Your task to perform on an android device: change text size in settings app Image 0: 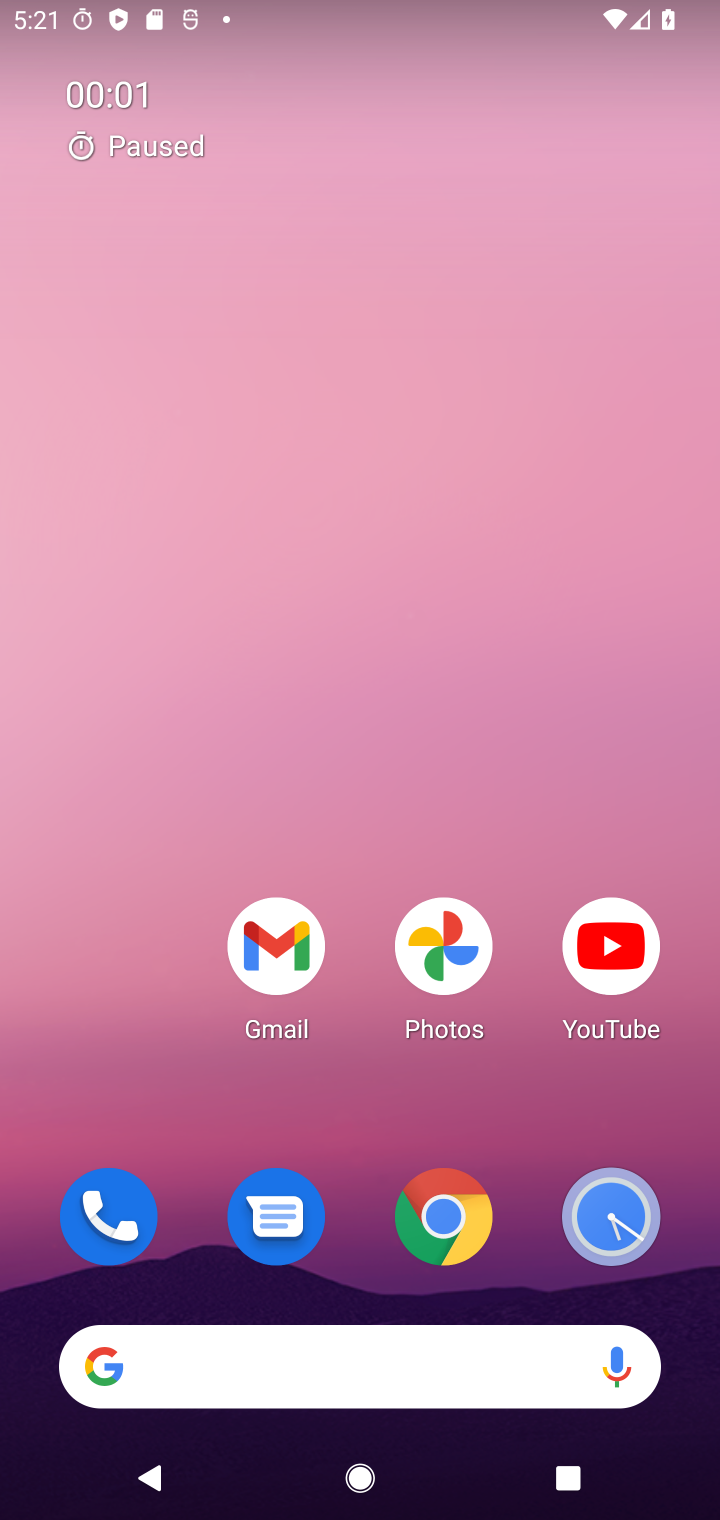
Step 0: drag from (546, 1102) to (589, 36)
Your task to perform on an android device: change text size in settings app Image 1: 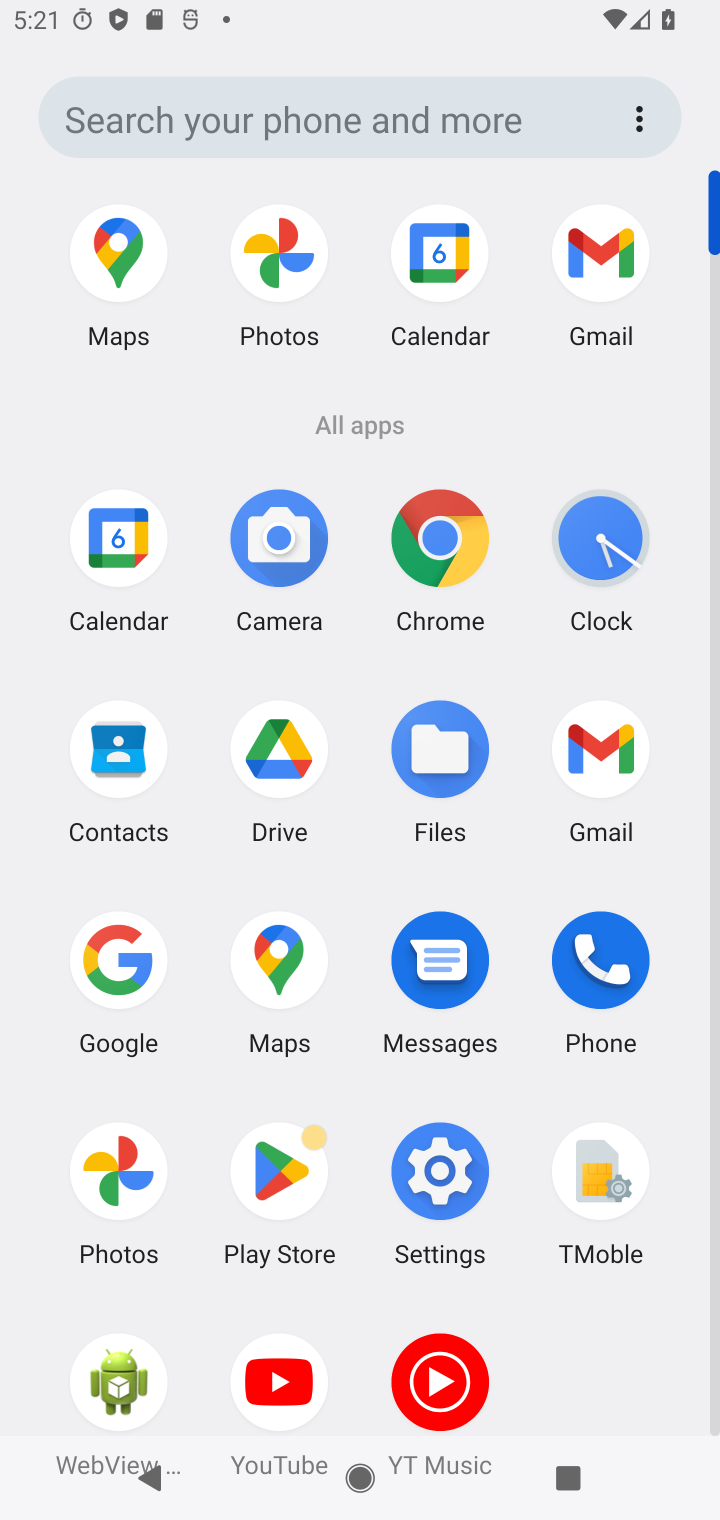
Step 1: click (419, 1171)
Your task to perform on an android device: change text size in settings app Image 2: 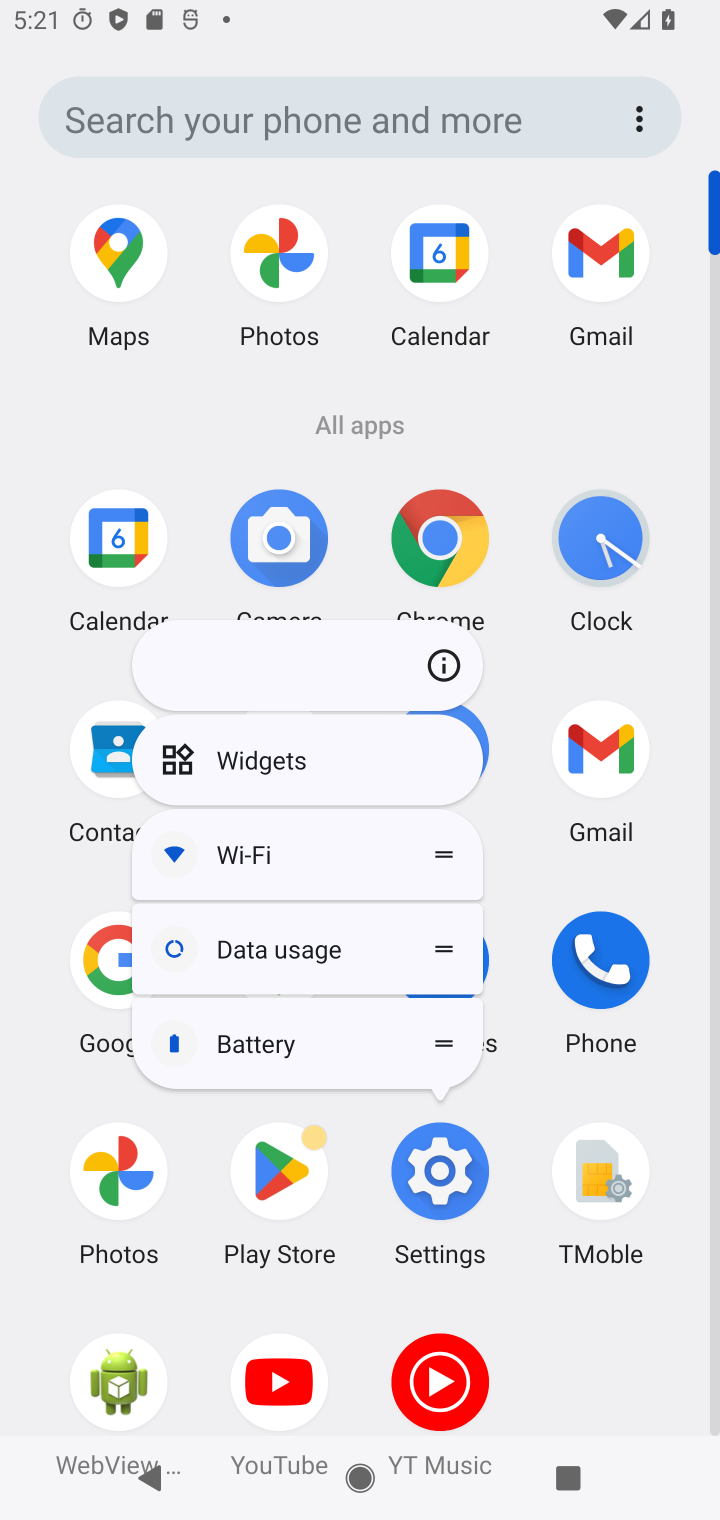
Step 2: click (435, 1167)
Your task to perform on an android device: change text size in settings app Image 3: 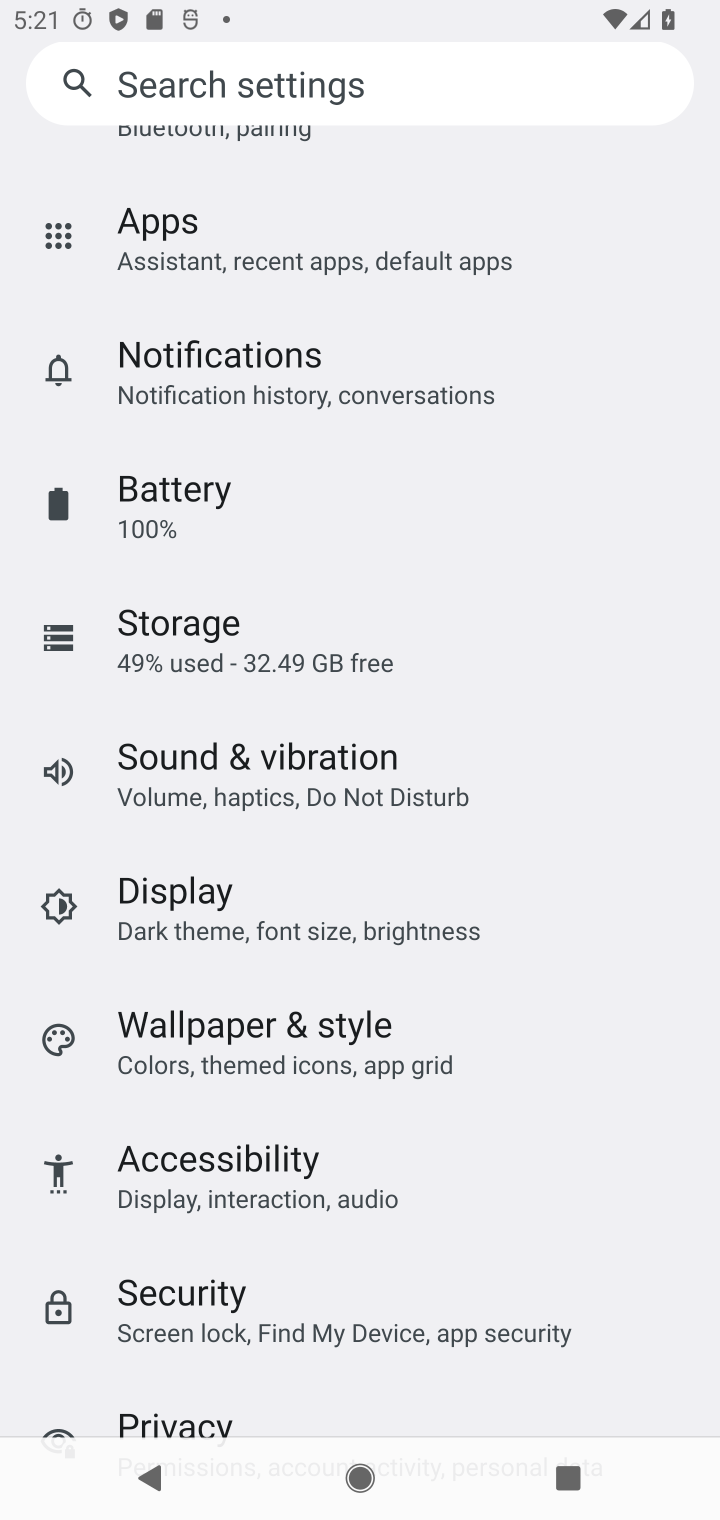
Step 3: drag from (323, 1377) to (334, 314)
Your task to perform on an android device: change text size in settings app Image 4: 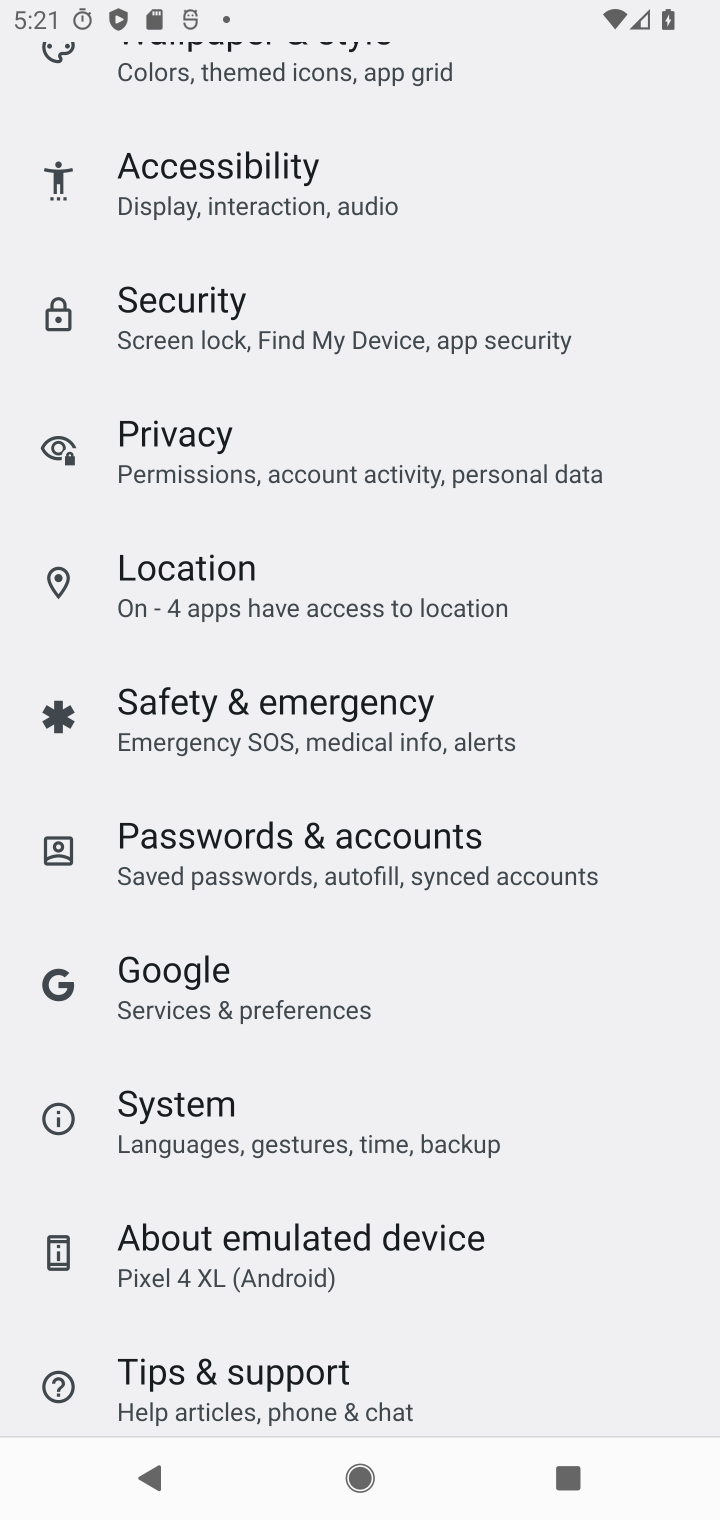
Step 4: drag from (500, 300) to (325, 988)
Your task to perform on an android device: change text size in settings app Image 5: 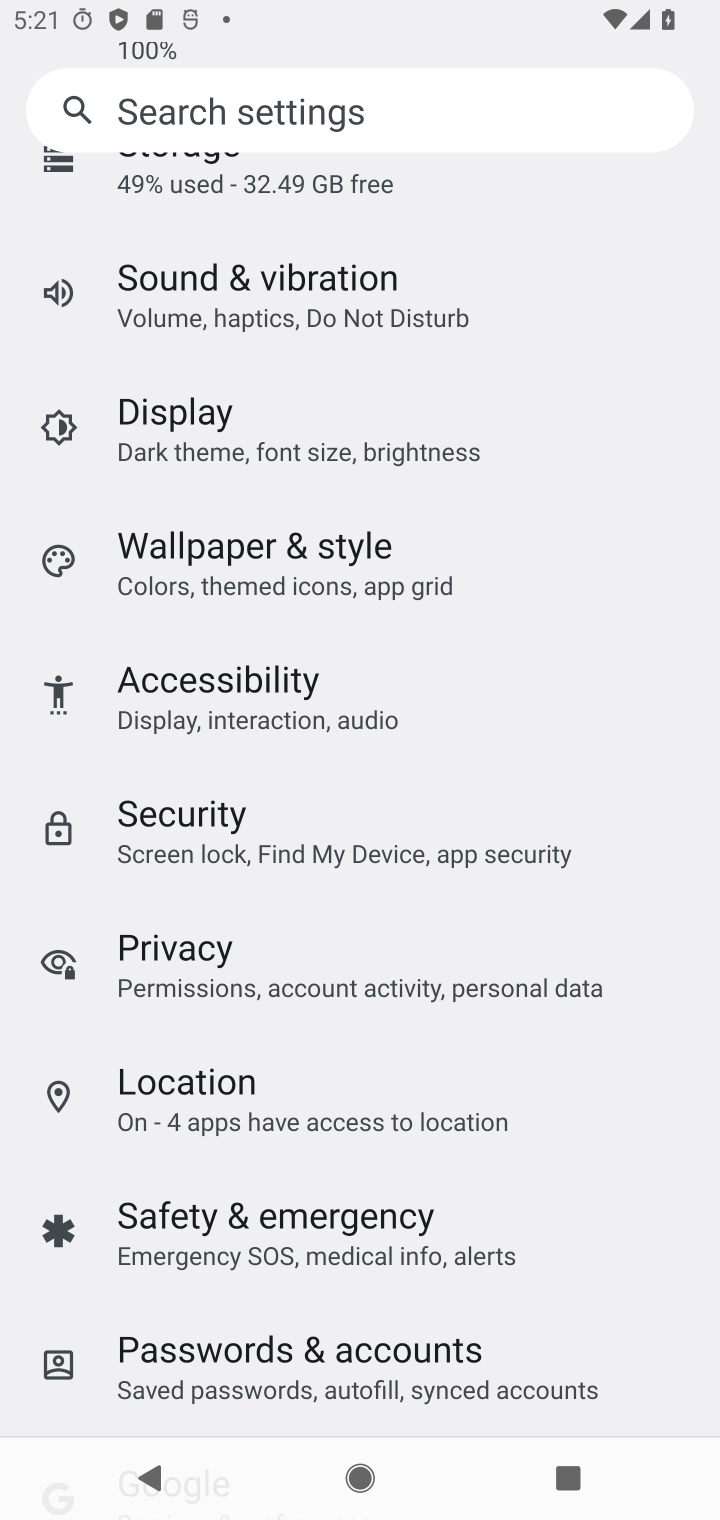
Step 5: click (201, 448)
Your task to perform on an android device: change text size in settings app Image 6: 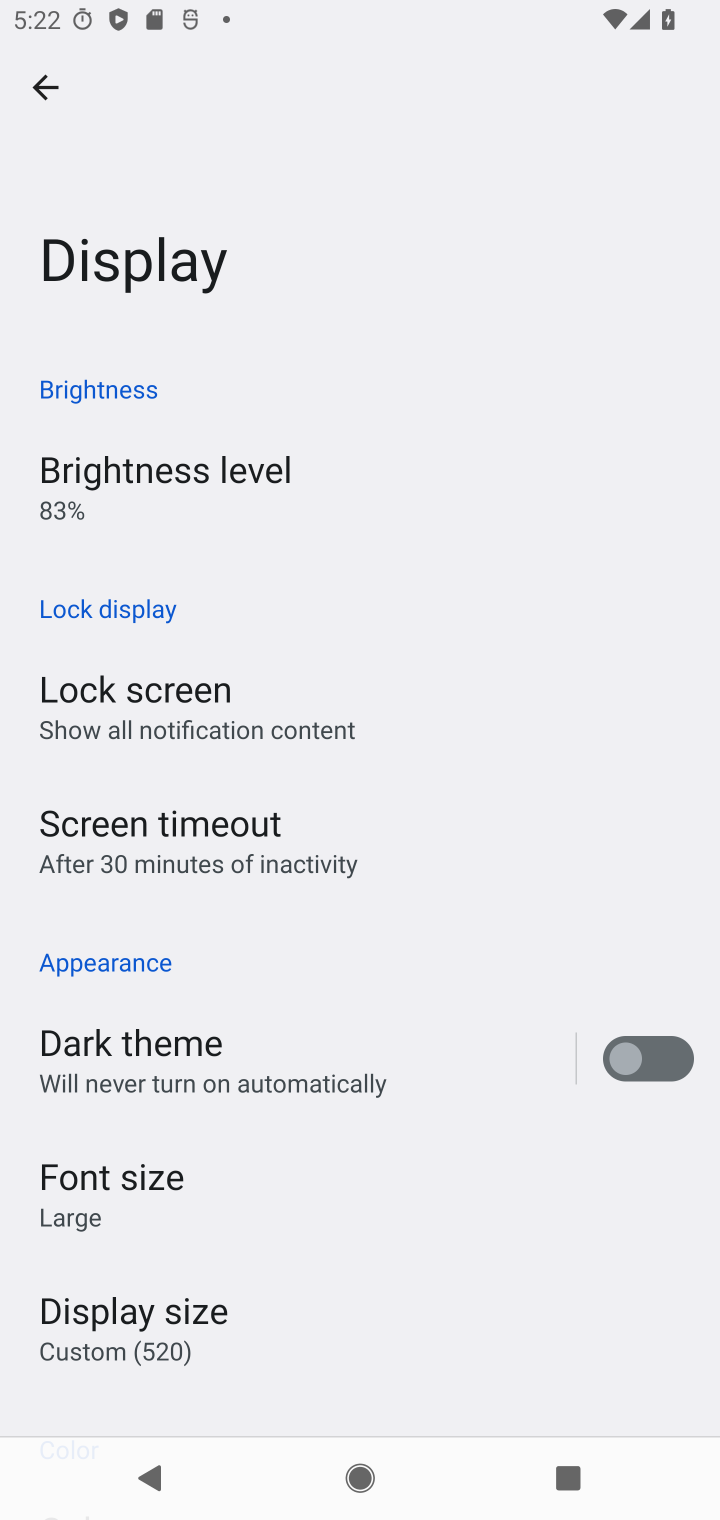
Step 6: drag from (431, 1341) to (426, 1076)
Your task to perform on an android device: change text size in settings app Image 7: 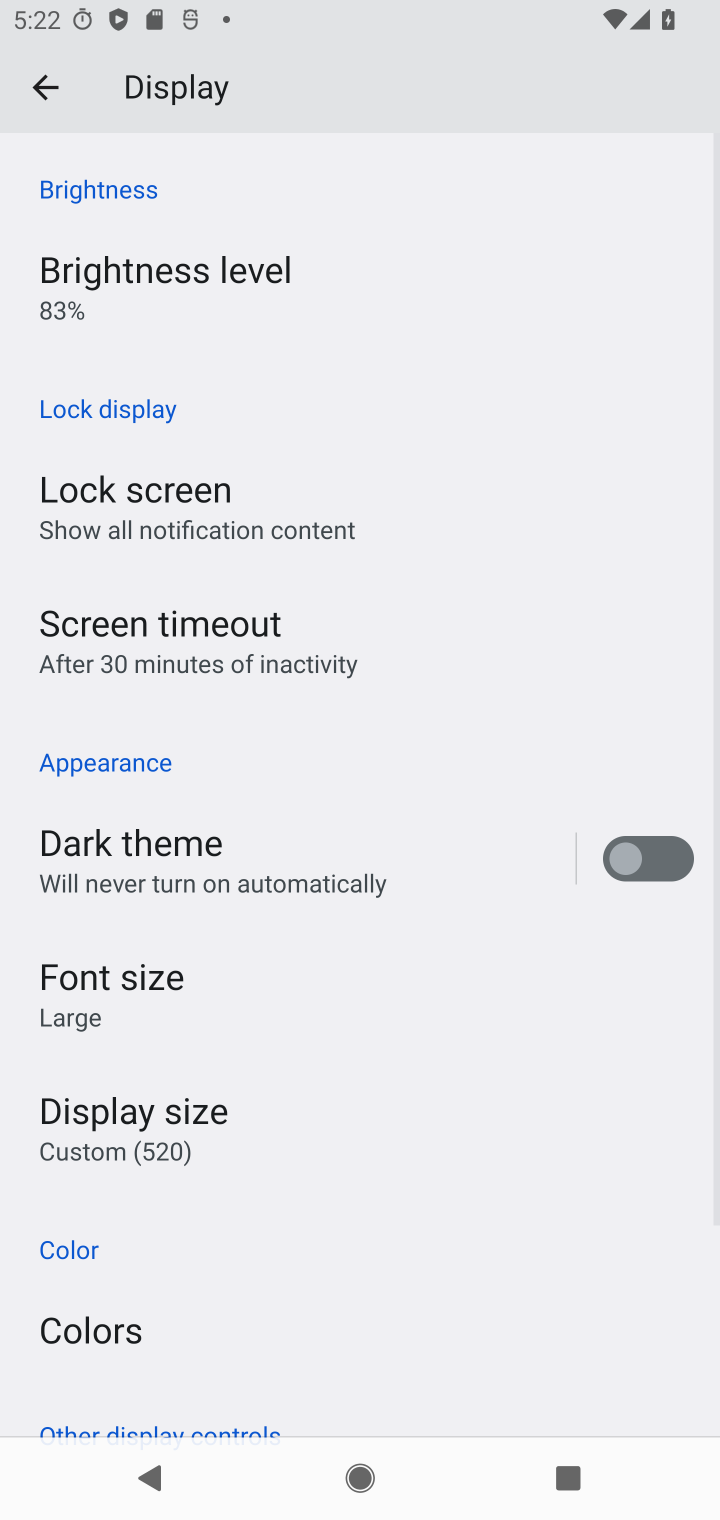
Step 7: click (149, 1037)
Your task to perform on an android device: change text size in settings app Image 8: 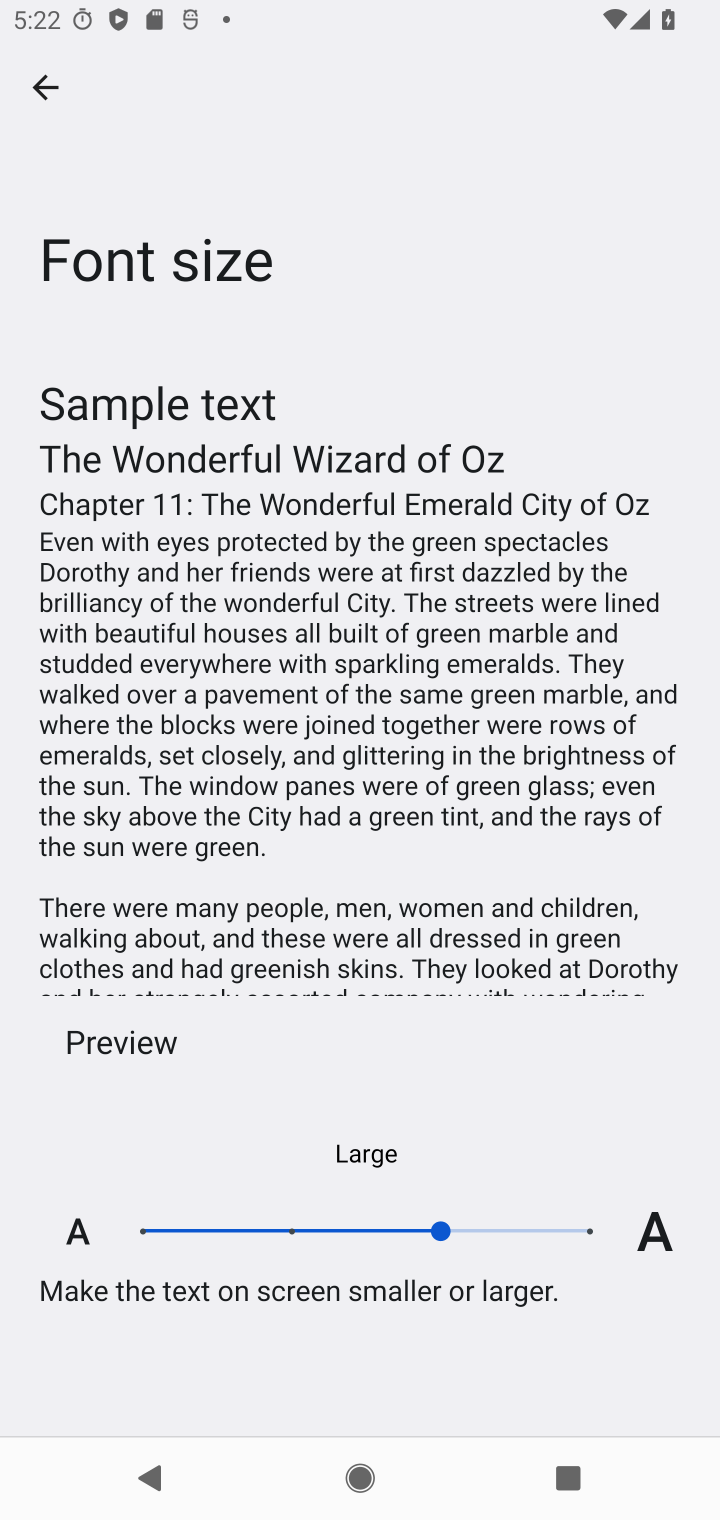
Step 8: click (304, 1218)
Your task to perform on an android device: change text size in settings app Image 9: 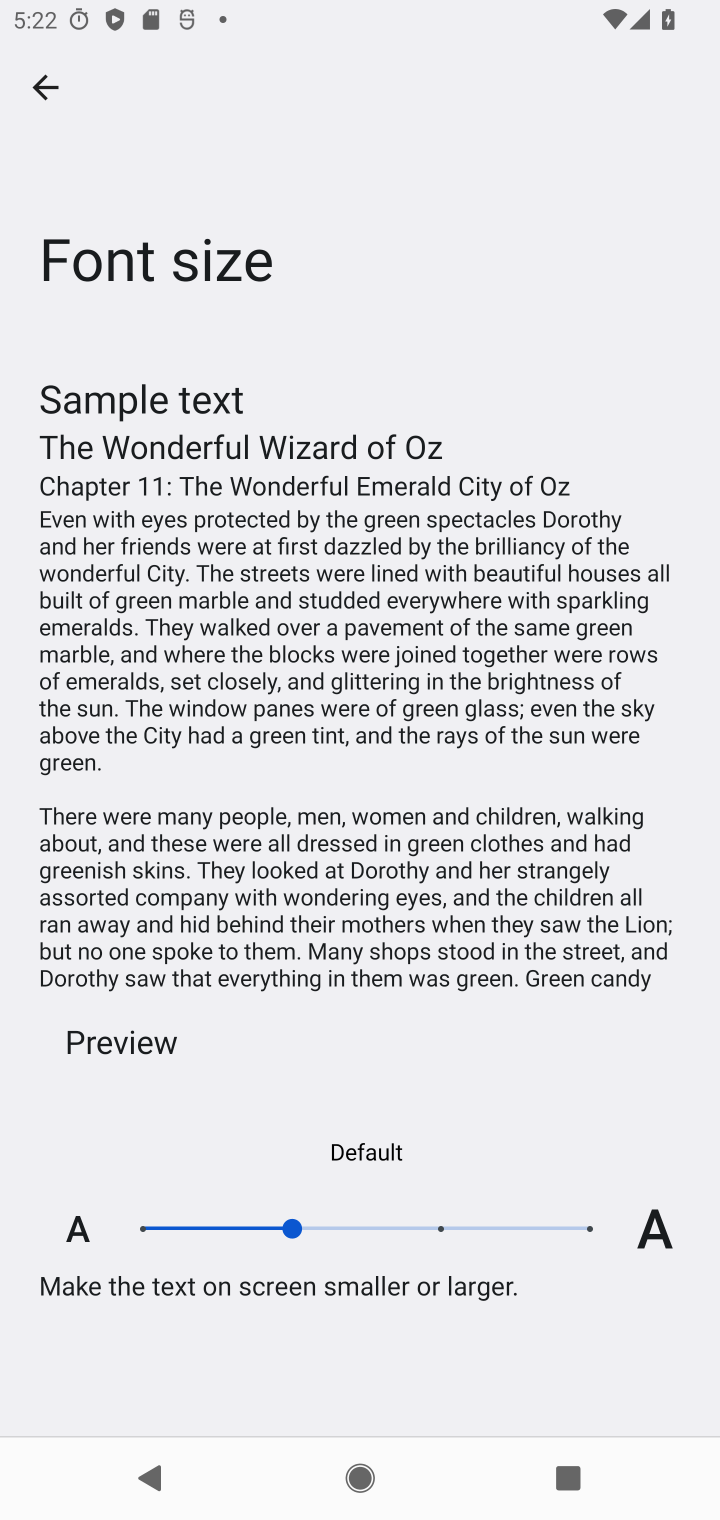
Step 9: task complete